Your task to perform on an android device: toggle wifi Image 0: 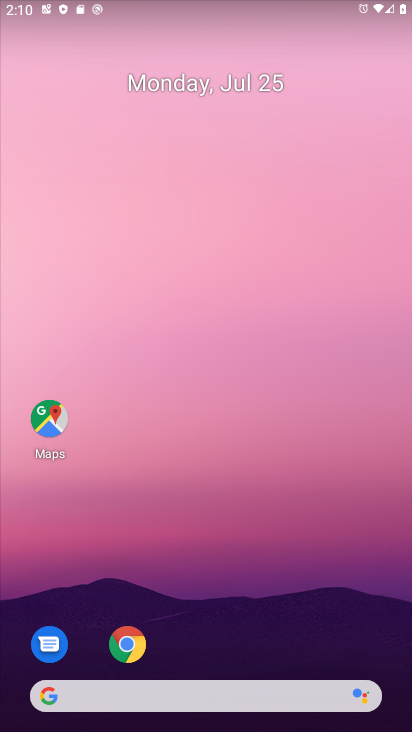
Step 0: drag from (373, 644) to (216, 43)
Your task to perform on an android device: toggle wifi Image 1: 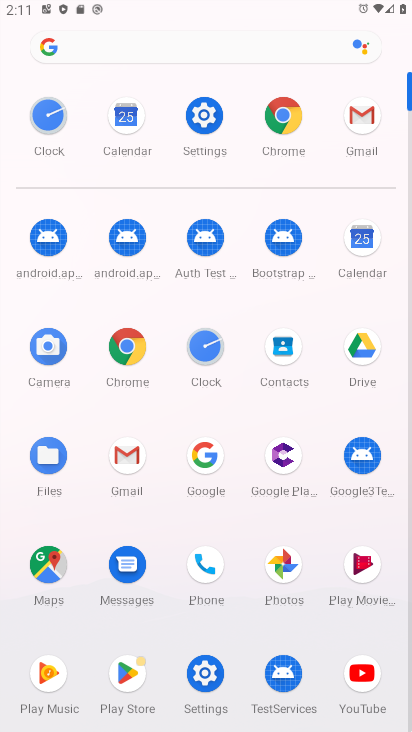
Step 1: drag from (182, 5) to (230, 691)
Your task to perform on an android device: toggle wifi Image 2: 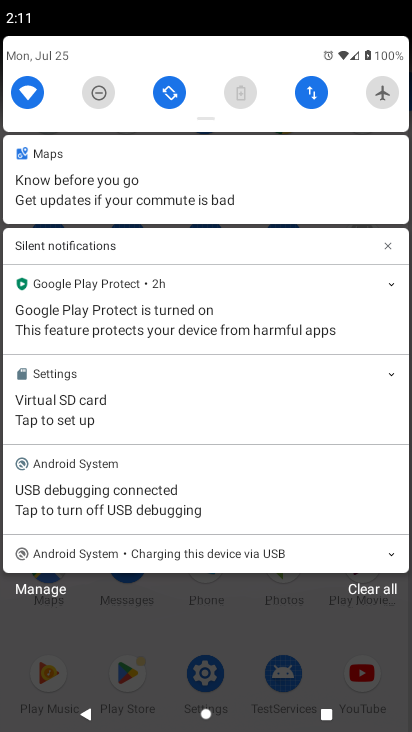
Step 2: click (23, 94)
Your task to perform on an android device: toggle wifi Image 3: 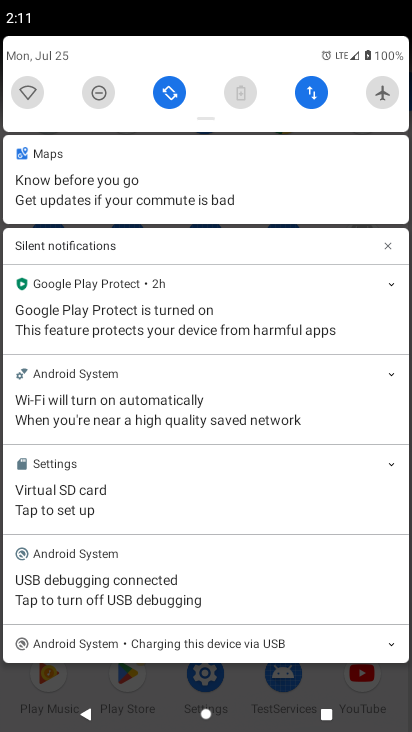
Step 3: task complete